Your task to perform on an android device: uninstall "DuckDuckGo Privacy Browser" Image 0: 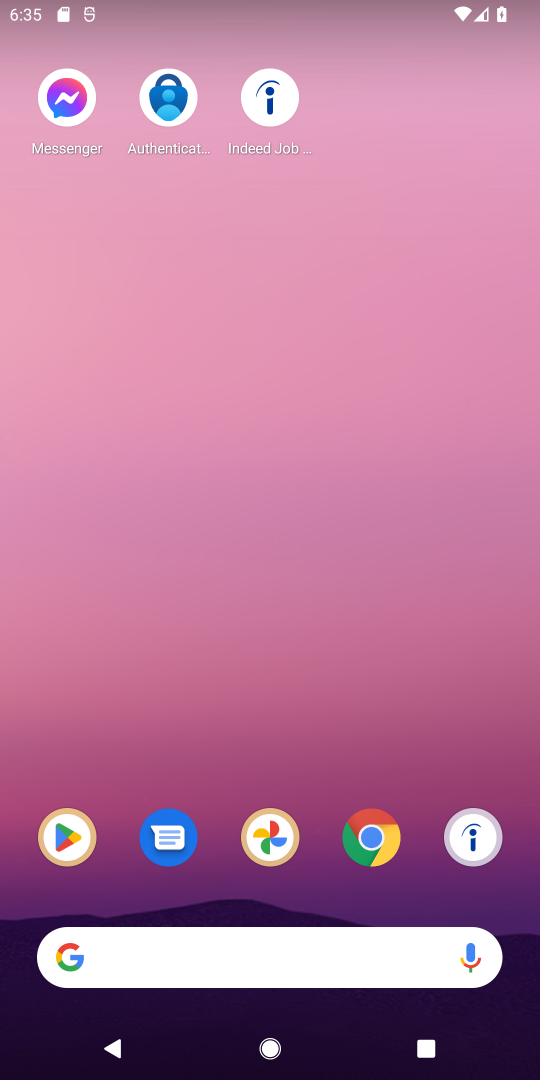
Step 0: click (62, 843)
Your task to perform on an android device: uninstall "DuckDuckGo Privacy Browser" Image 1: 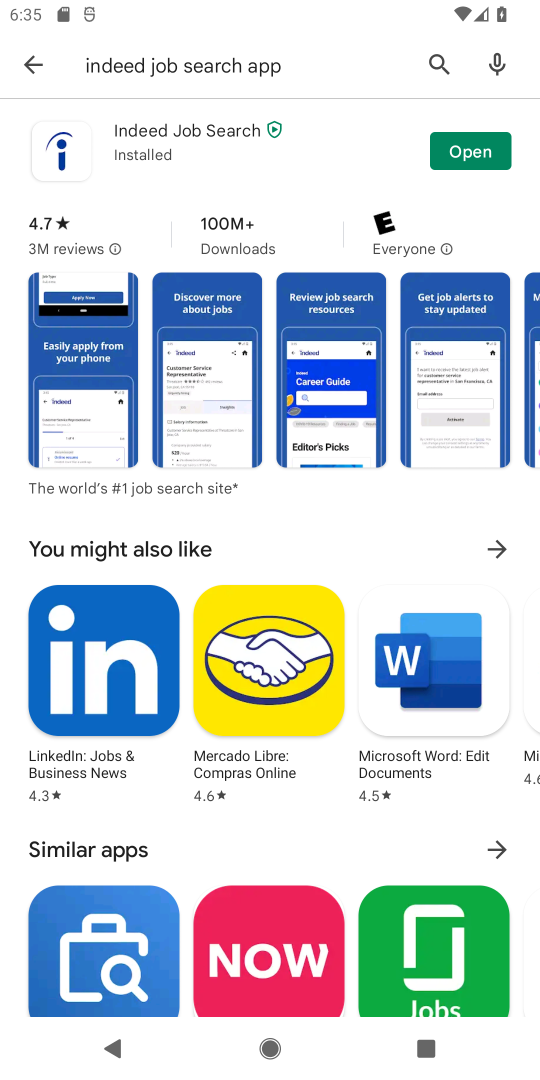
Step 1: click (442, 62)
Your task to perform on an android device: uninstall "DuckDuckGo Privacy Browser" Image 2: 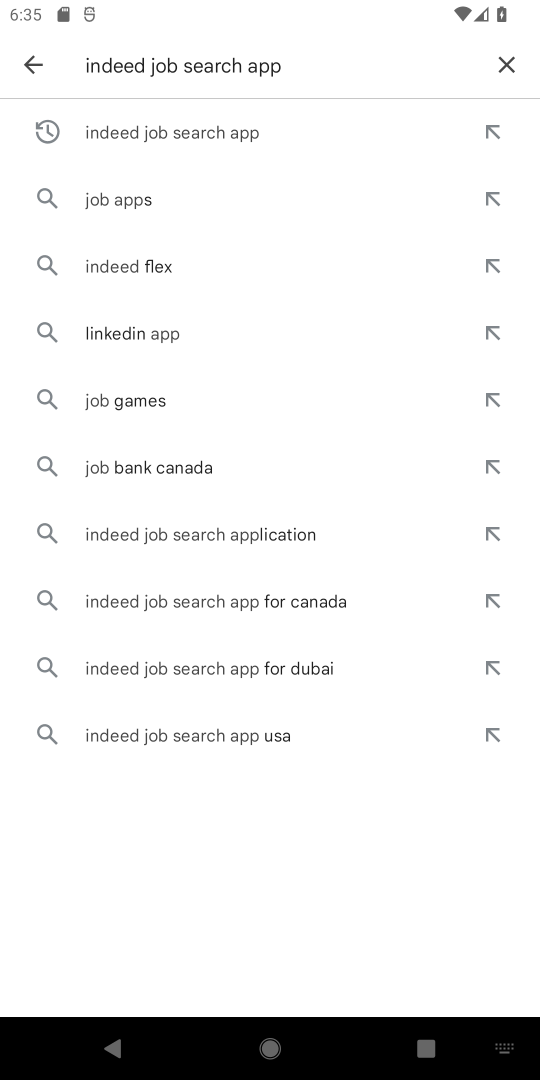
Step 2: click (505, 74)
Your task to perform on an android device: uninstall "DuckDuckGo Privacy Browser" Image 3: 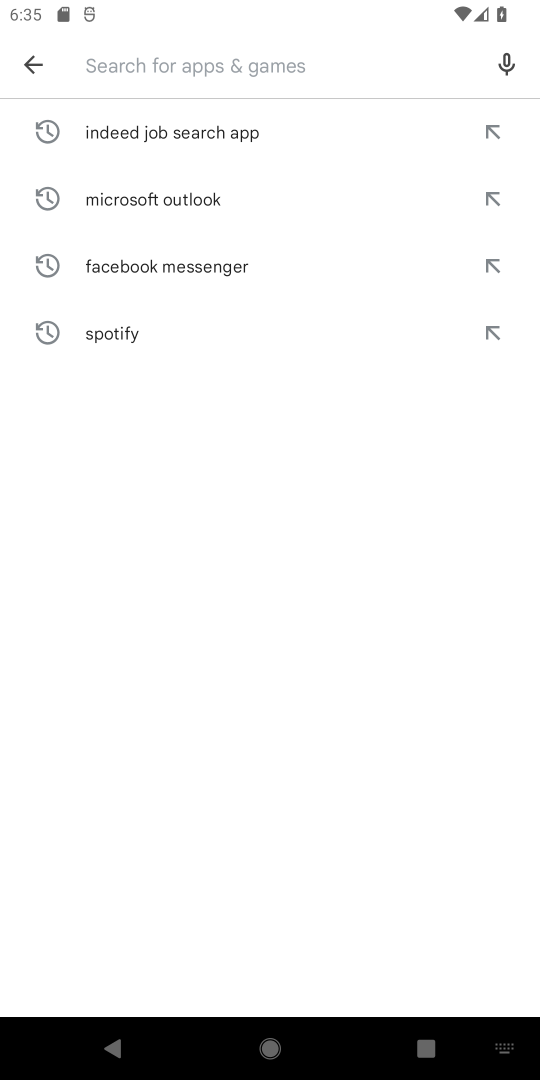
Step 3: type "DuckDuckGo Privacy Browser"
Your task to perform on an android device: uninstall "DuckDuckGo Privacy Browser" Image 4: 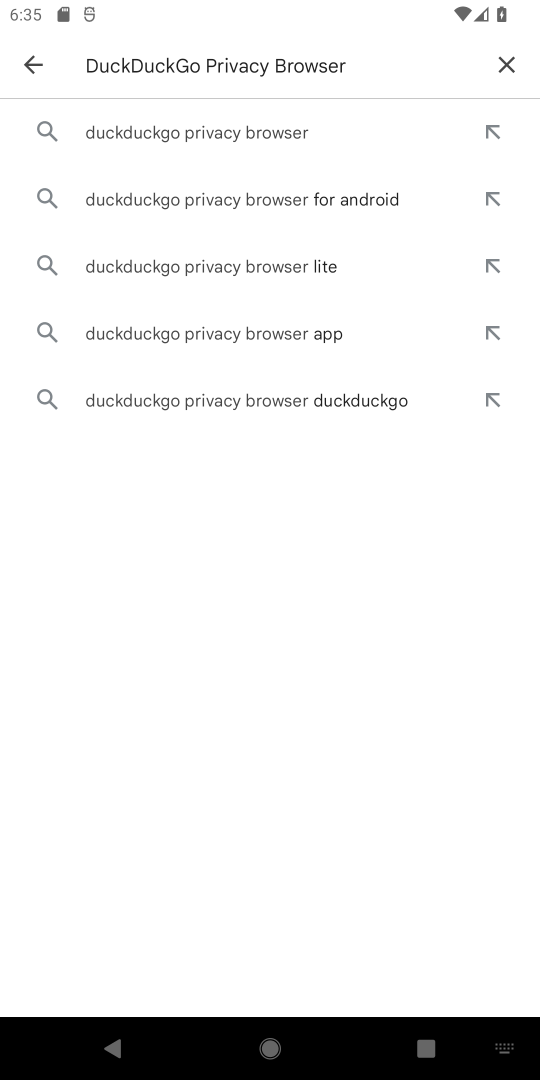
Step 4: click (156, 143)
Your task to perform on an android device: uninstall "DuckDuckGo Privacy Browser" Image 5: 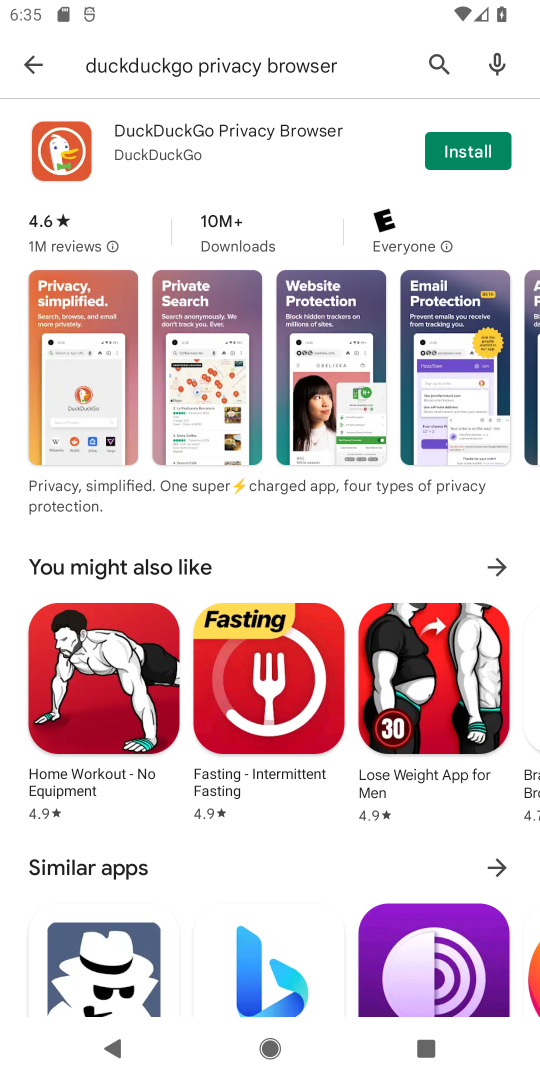
Step 5: task complete